Your task to perform on an android device: Open Android settings Image 0: 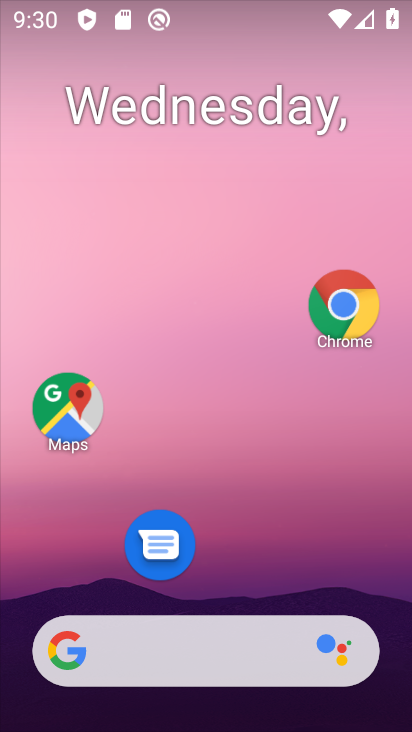
Step 0: click (259, 217)
Your task to perform on an android device: Open Android settings Image 1: 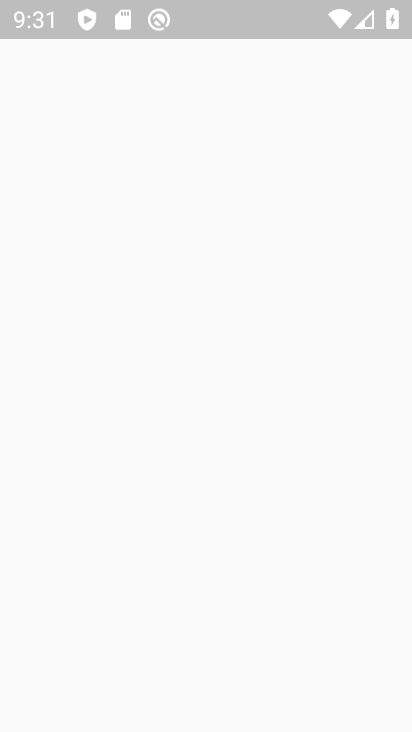
Step 1: press home button
Your task to perform on an android device: Open Android settings Image 2: 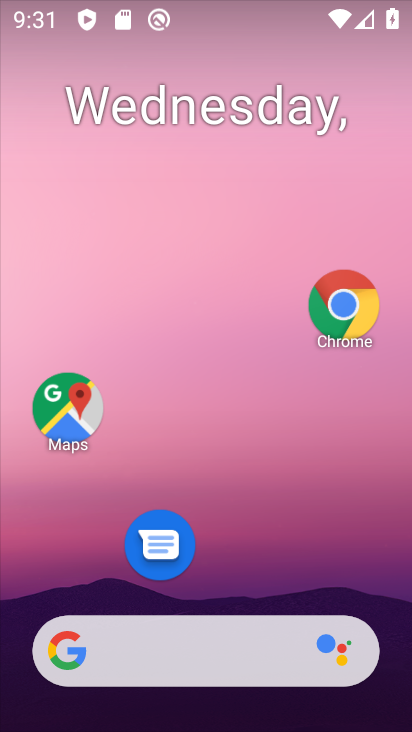
Step 2: drag from (362, 598) to (321, 247)
Your task to perform on an android device: Open Android settings Image 3: 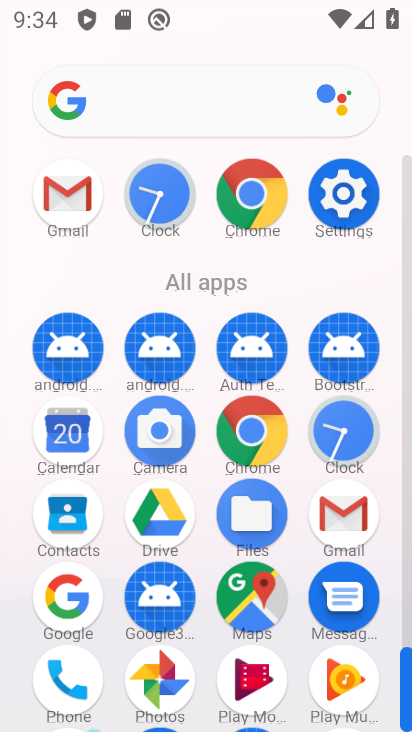
Step 3: click (359, 199)
Your task to perform on an android device: Open Android settings Image 4: 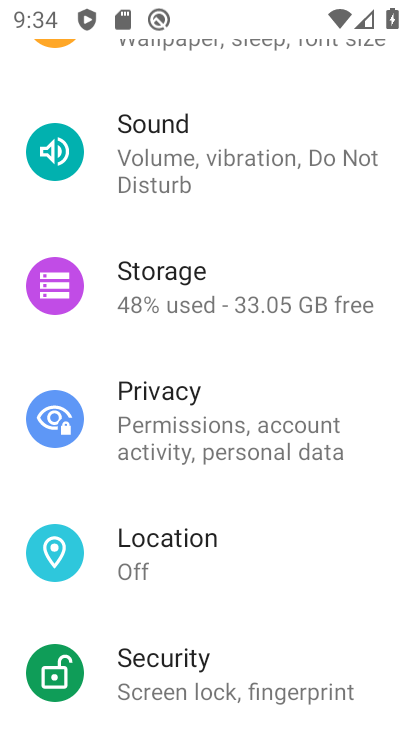
Step 4: drag from (224, 444) to (255, 351)
Your task to perform on an android device: Open Android settings Image 5: 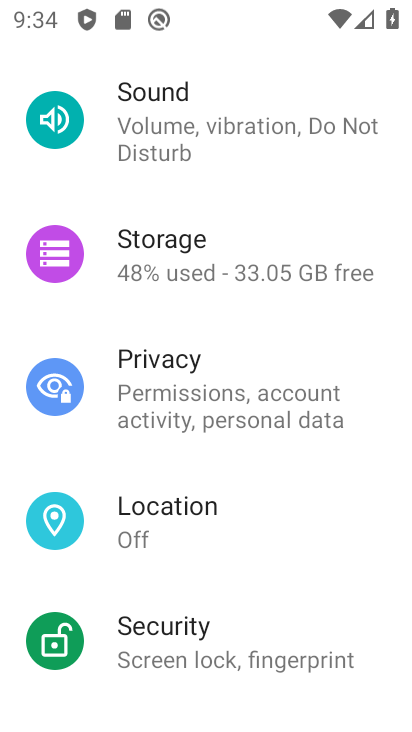
Step 5: click (354, 213)
Your task to perform on an android device: Open Android settings Image 6: 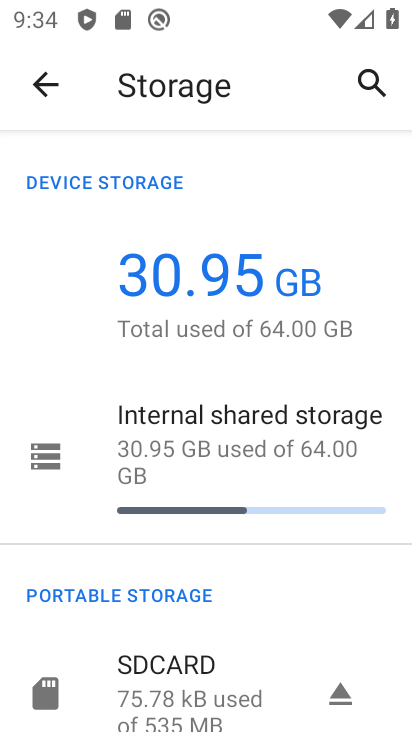
Step 6: click (54, 101)
Your task to perform on an android device: Open Android settings Image 7: 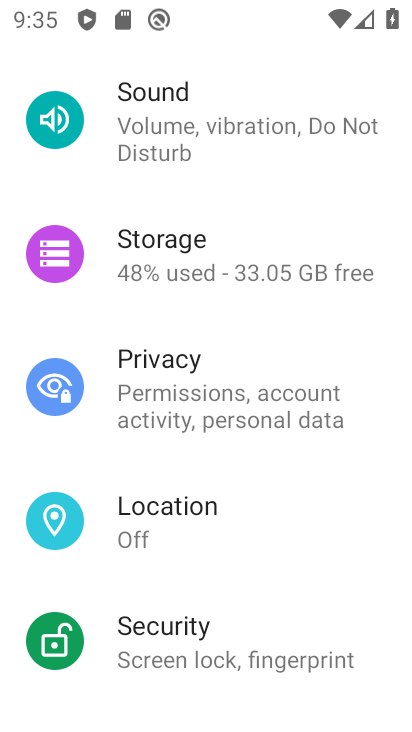
Step 7: drag from (217, 519) to (294, 234)
Your task to perform on an android device: Open Android settings Image 8: 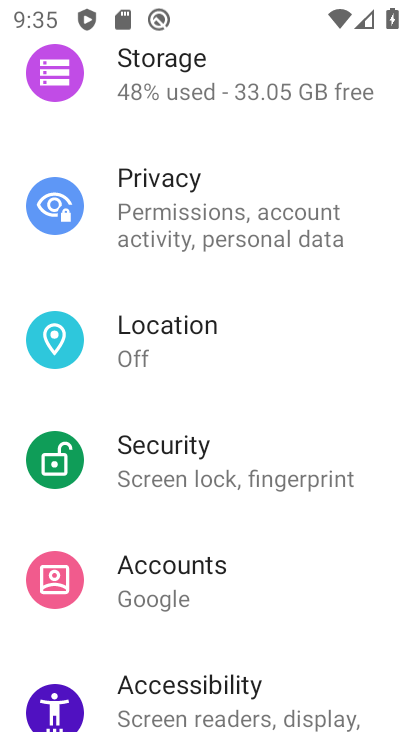
Step 8: drag from (278, 404) to (332, 256)
Your task to perform on an android device: Open Android settings Image 9: 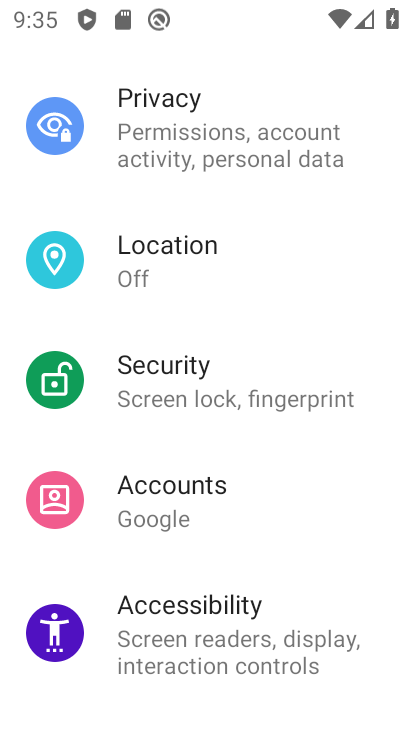
Step 9: drag from (237, 539) to (326, 265)
Your task to perform on an android device: Open Android settings Image 10: 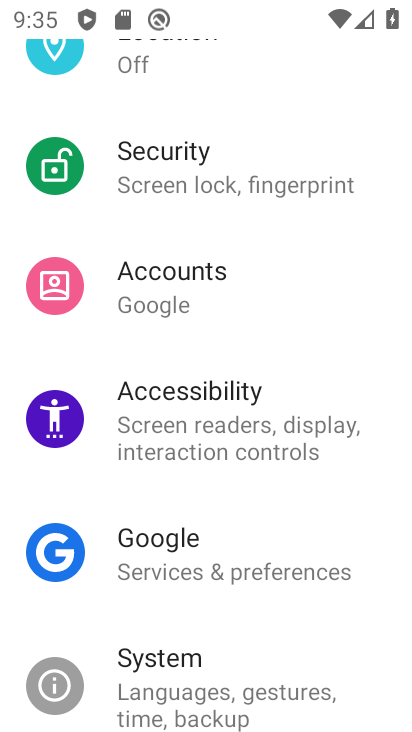
Step 10: drag from (311, 397) to (370, 225)
Your task to perform on an android device: Open Android settings Image 11: 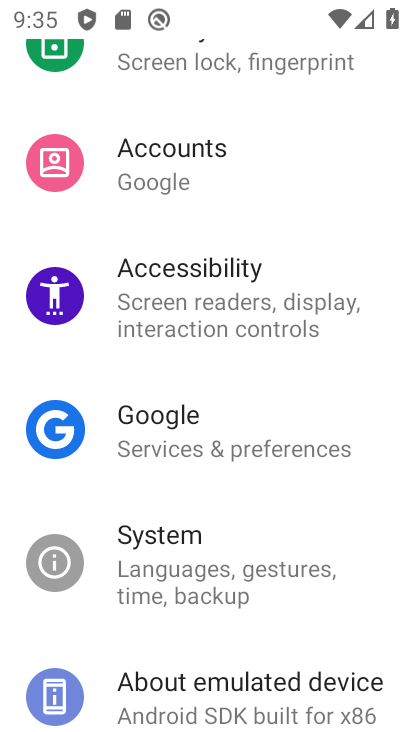
Step 11: drag from (268, 538) to (334, 255)
Your task to perform on an android device: Open Android settings Image 12: 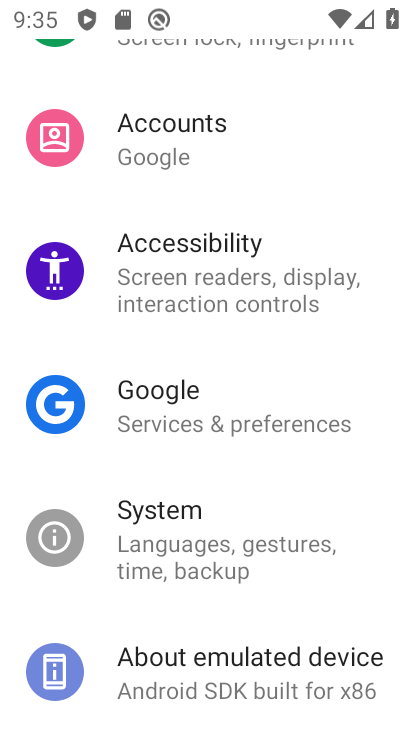
Step 12: drag from (211, 590) to (257, 345)
Your task to perform on an android device: Open Android settings Image 13: 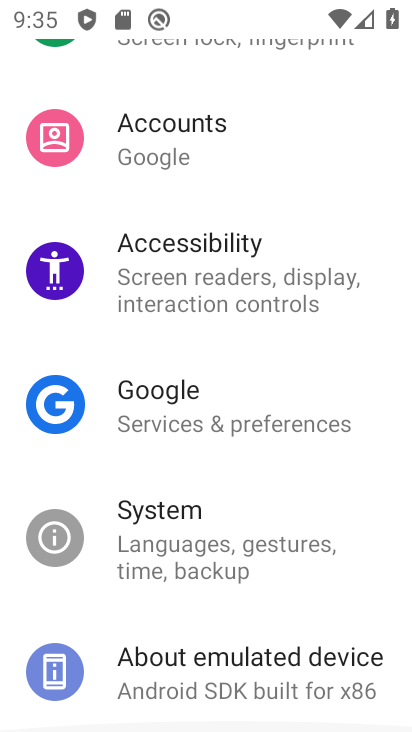
Step 13: click (211, 647)
Your task to perform on an android device: Open Android settings Image 14: 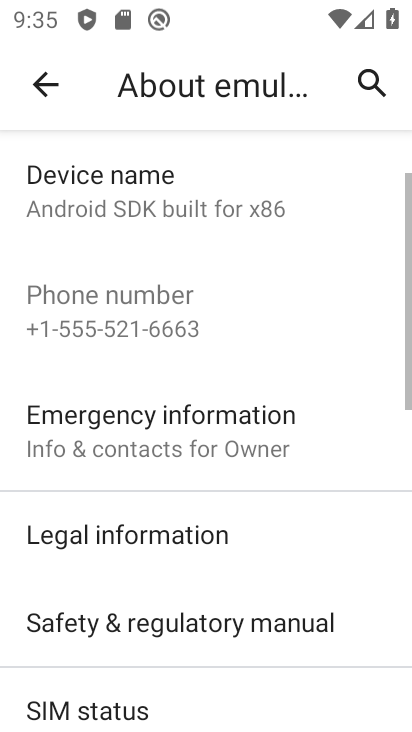
Step 14: task complete